Your task to perform on an android device: check battery use Image 0: 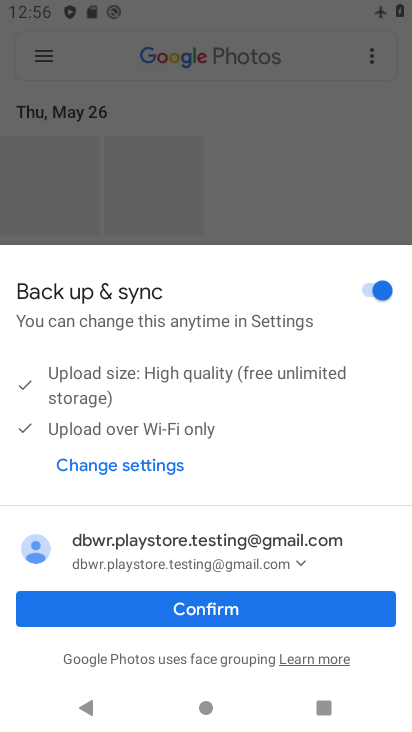
Step 0: click (327, 622)
Your task to perform on an android device: check battery use Image 1: 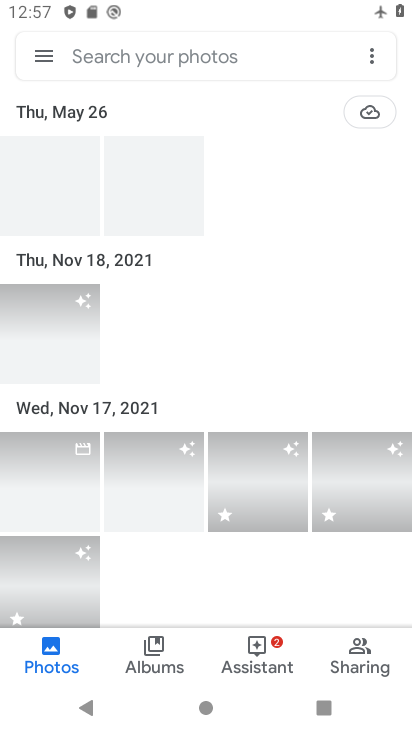
Step 1: press home button
Your task to perform on an android device: check battery use Image 2: 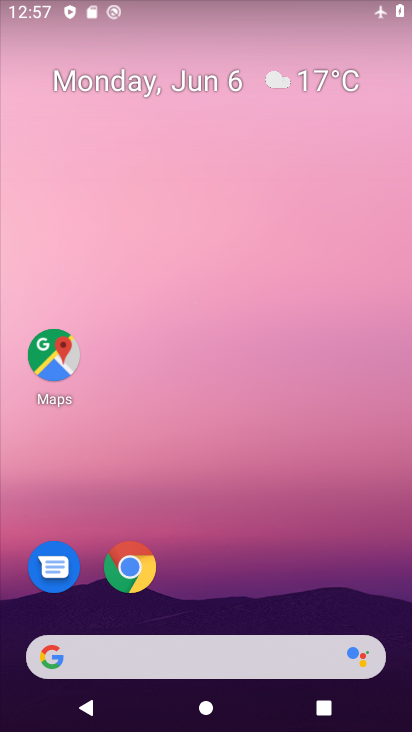
Step 2: drag from (261, 609) to (320, 4)
Your task to perform on an android device: check battery use Image 3: 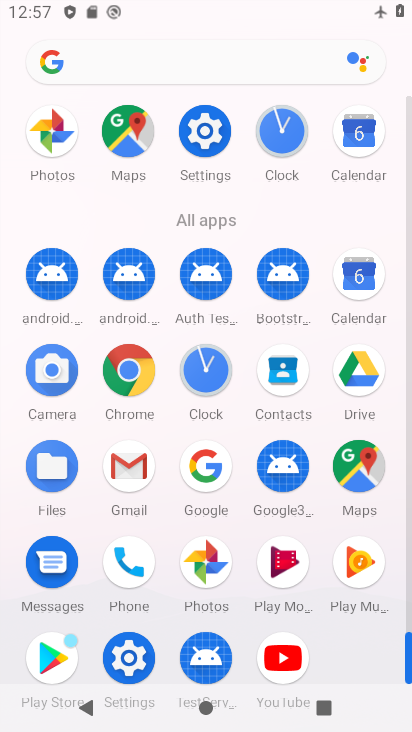
Step 3: click (209, 147)
Your task to perform on an android device: check battery use Image 4: 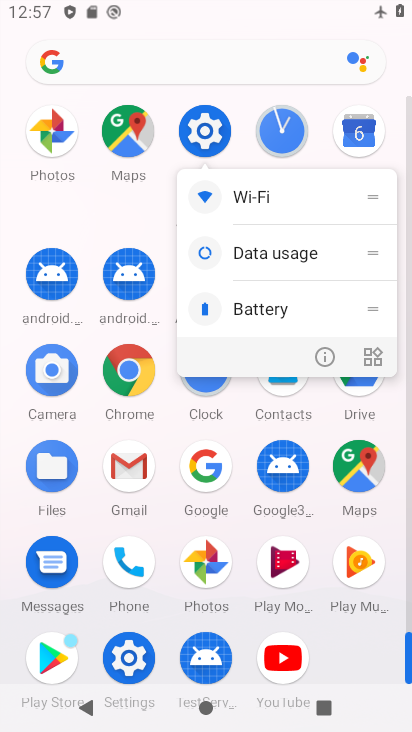
Step 4: click (213, 130)
Your task to perform on an android device: check battery use Image 5: 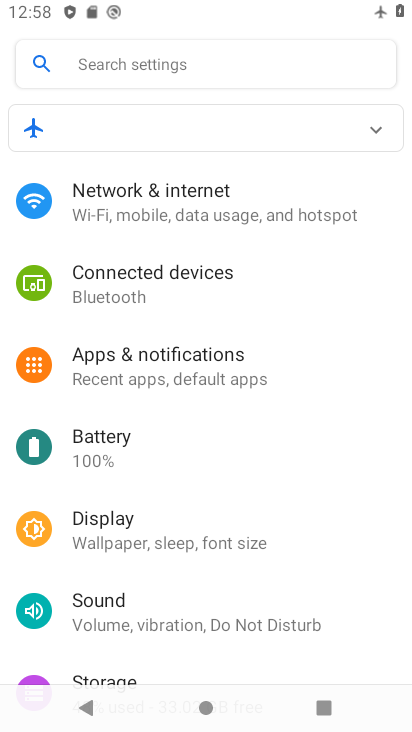
Step 5: click (133, 457)
Your task to perform on an android device: check battery use Image 6: 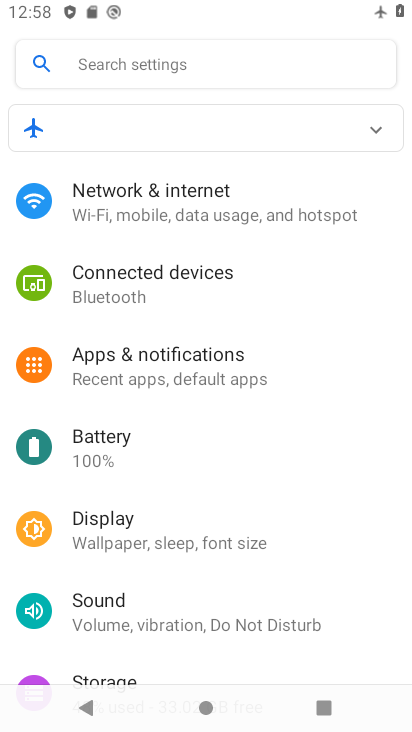
Step 6: click (133, 457)
Your task to perform on an android device: check battery use Image 7: 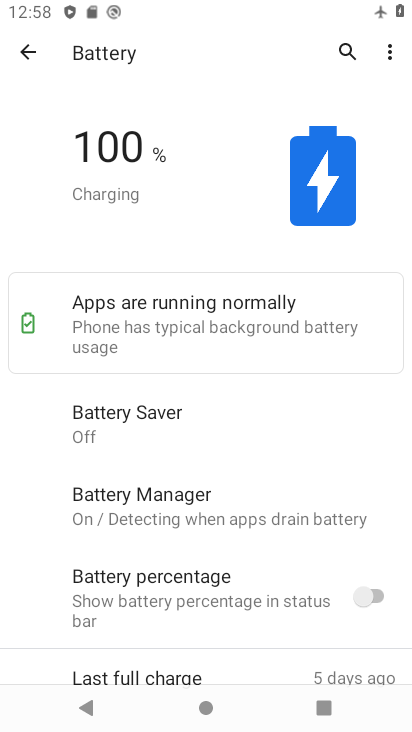
Step 7: click (393, 49)
Your task to perform on an android device: check battery use Image 8: 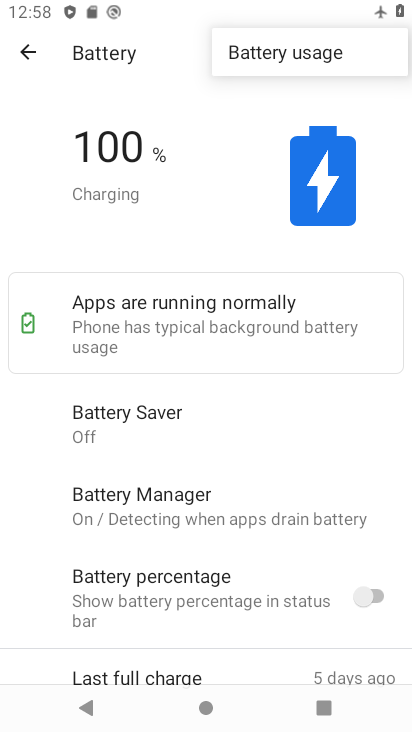
Step 8: click (326, 55)
Your task to perform on an android device: check battery use Image 9: 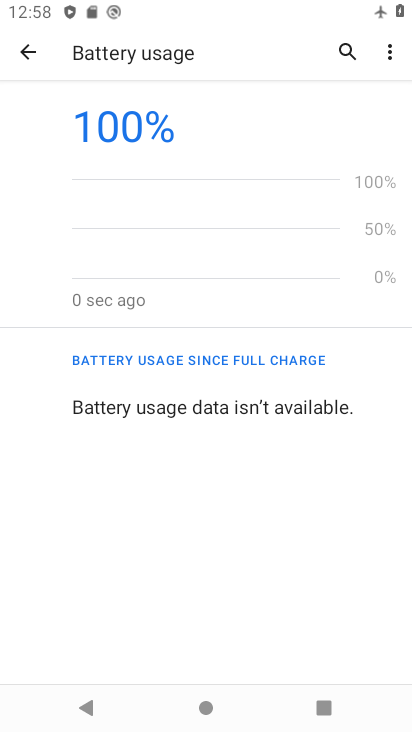
Step 9: task complete